Your task to perform on an android device: Go to privacy settings Image 0: 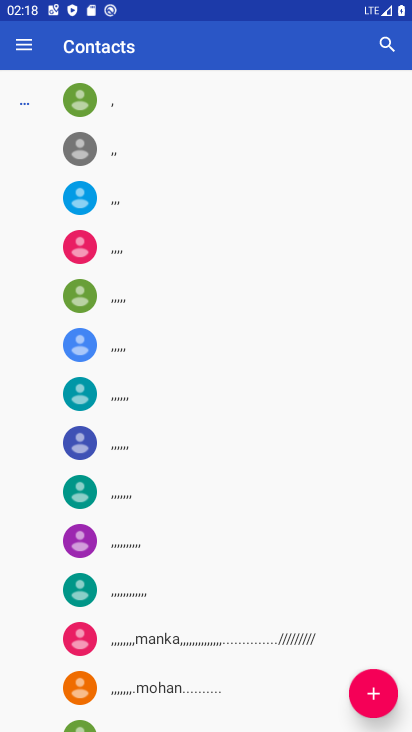
Step 0: press home button
Your task to perform on an android device: Go to privacy settings Image 1: 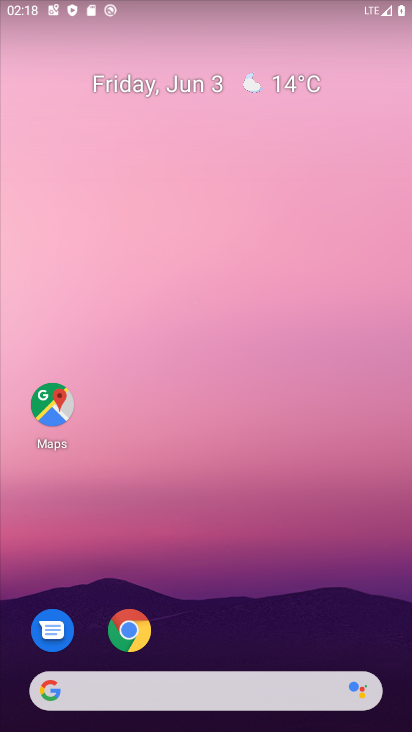
Step 1: click (126, 623)
Your task to perform on an android device: Go to privacy settings Image 2: 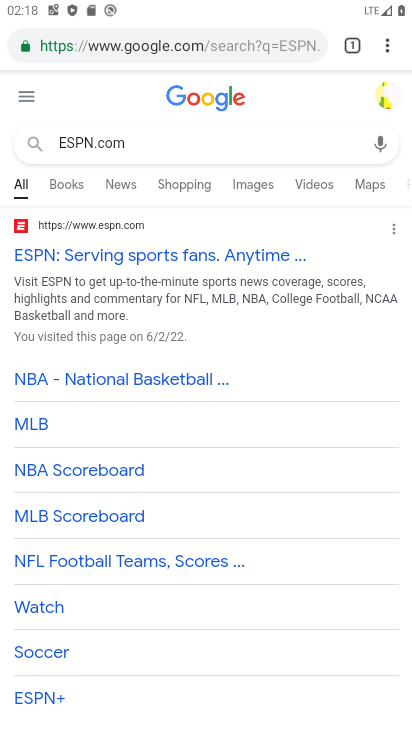
Step 2: click (389, 46)
Your task to perform on an android device: Go to privacy settings Image 3: 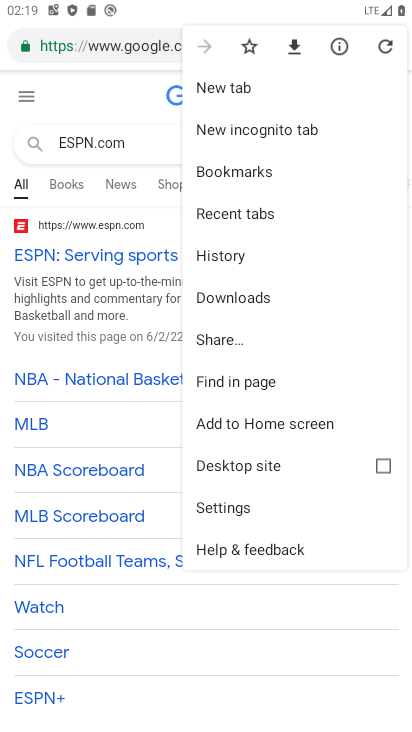
Step 3: click (219, 501)
Your task to perform on an android device: Go to privacy settings Image 4: 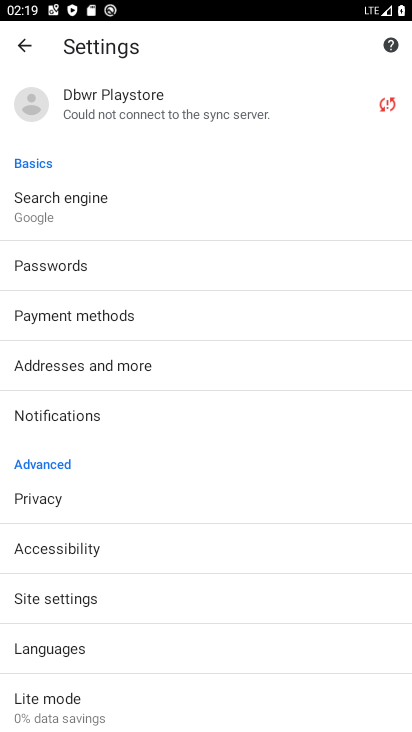
Step 4: click (58, 502)
Your task to perform on an android device: Go to privacy settings Image 5: 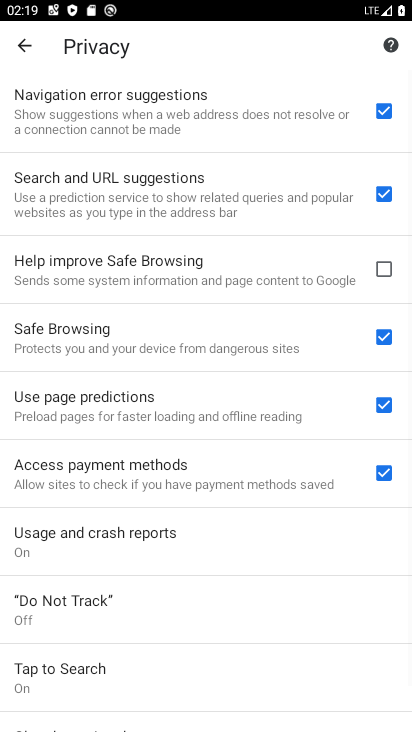
Step 5: task complete